Your task to perform on an android device: Is it going to rain tomorrow? Image 0: 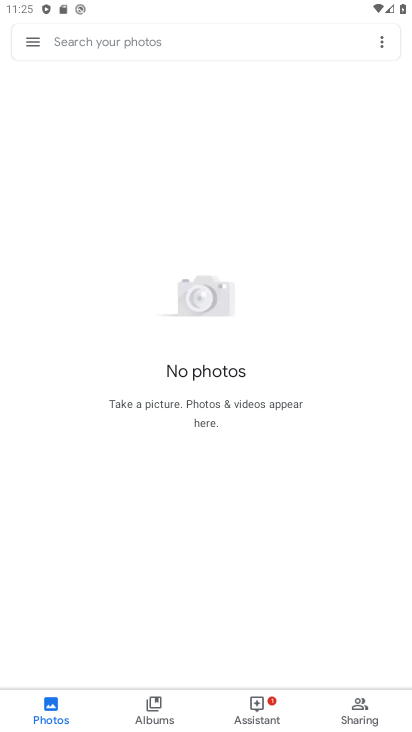
Step 0: press home button
Your task to perform on an android device: Is it going to rain tomorrow? Image 1: 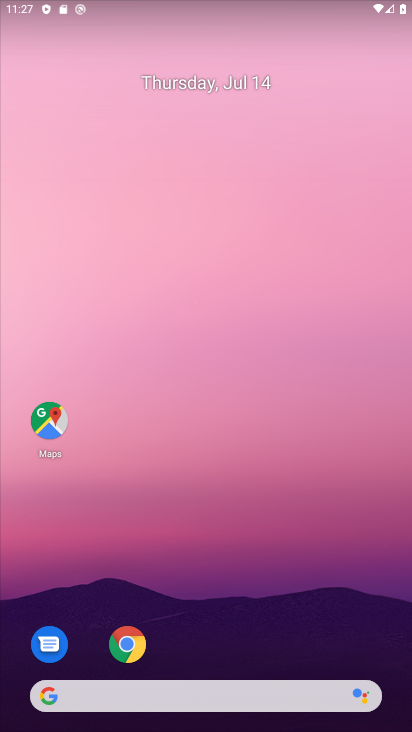
Step 1: drag from (365, 635) to (198, 61)
Your task to perform on an android device: Is it going to rain tomorrow? Image 2: 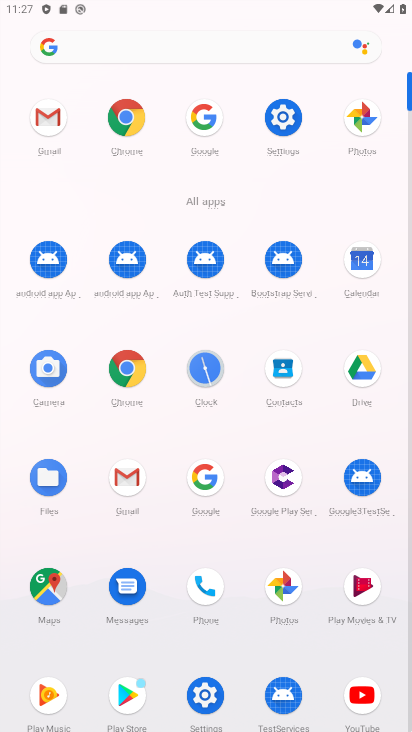
Step 2: click (192, 470)
Your task to perform on an android device: Is it going to rain tomorrow? Image 3: 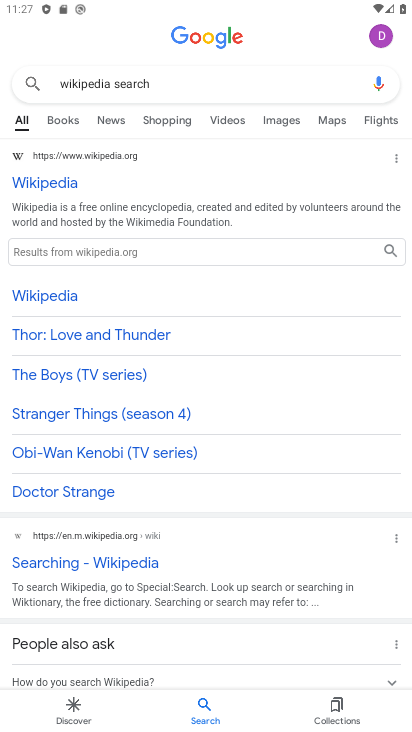
Step 3: press back button
Your task to perform on an android device: Is it going to rain tomorrow? Image 4: 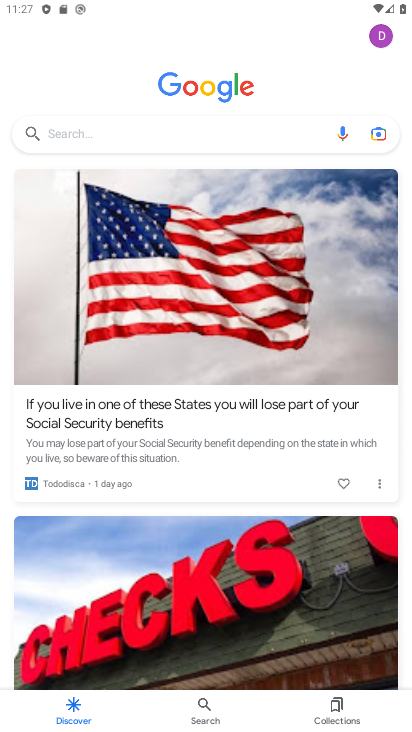
Step 4: click (88, 129)
Your task to perform on an android device: Is it going to rain tomorrow? Image 5: 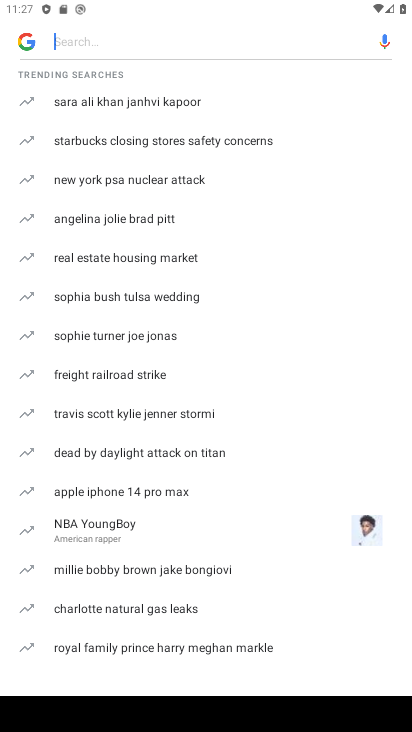
Step 5: type "Is it going to rain tomorrow?"
Your task to perform on an android device: Is it going to rain tomorrow? Image 6: 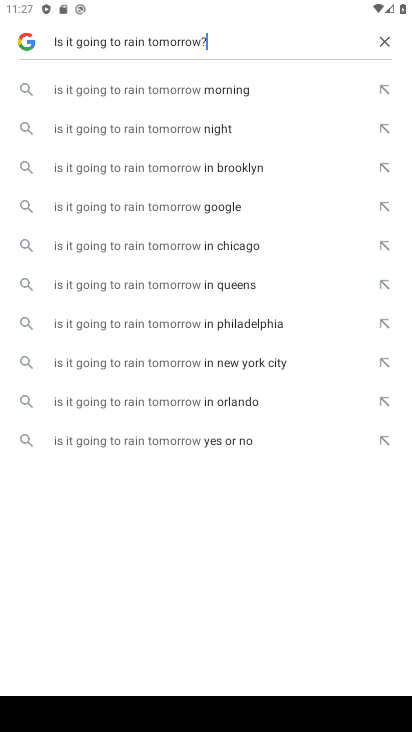
Step 6: click (164, 214)
Your task to perform on an android device: Is it going to rain tomorrow? Image 7: 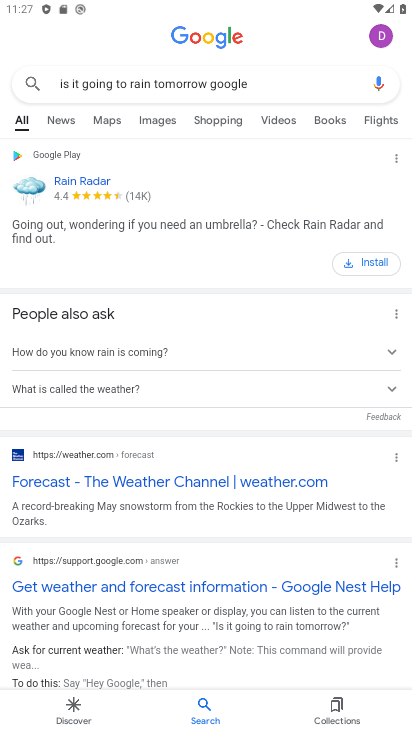
Step 7: task complete